Your task to perform on an android device: delete location history Image 0: 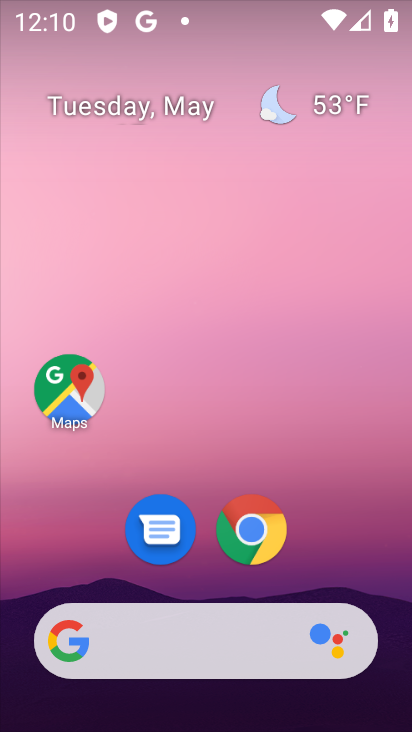
Step 0: drag from (221, 723) to (215, 97)
Your task to perform on an android device: delete location history Image 1: 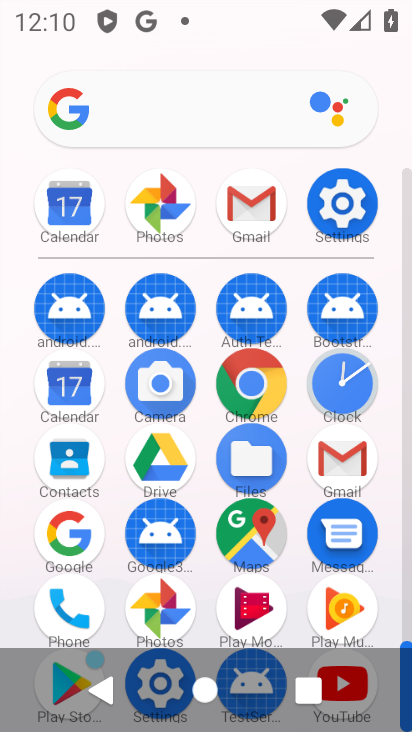
Step 1: click (334, 198)
Your task to perform on an android device: delete location history Image 2: 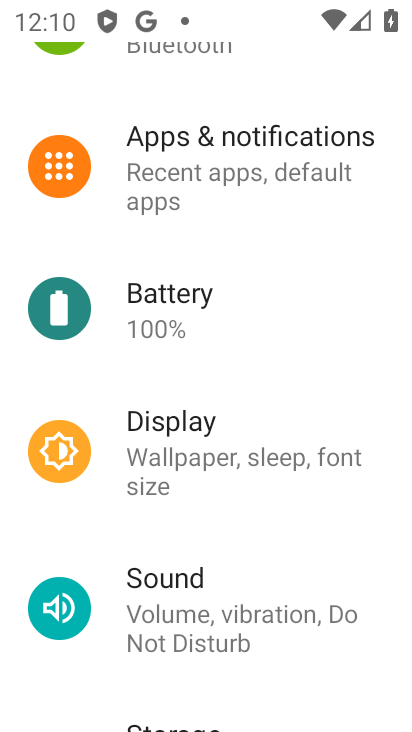
Step 2: drag from (186, 690) to (181, 280)
Your task to perform on an android device: delete location history Image 3: 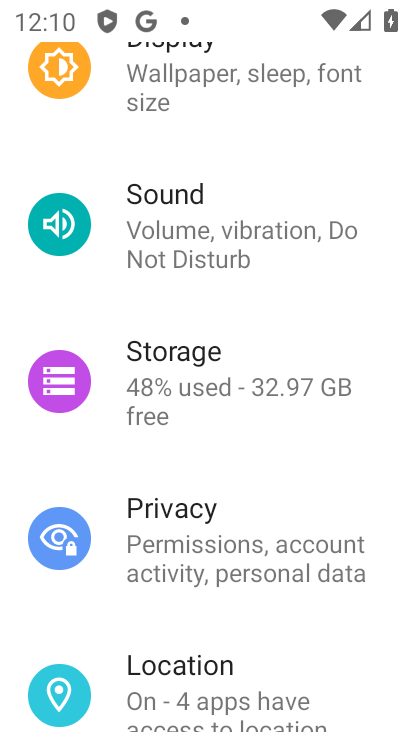
Step 3: click (169, 676)
Your task to perform on an android device: delete location history Image 4: 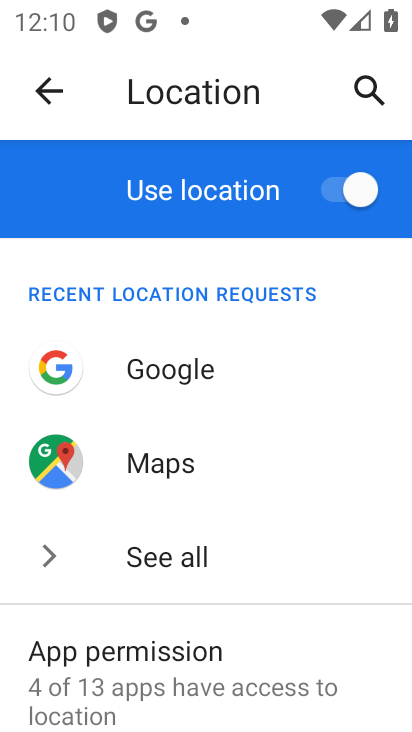
Step 4: drag from (147, 686) to (161, 287)
Your task to perform on an android device: delete location history Image 5: 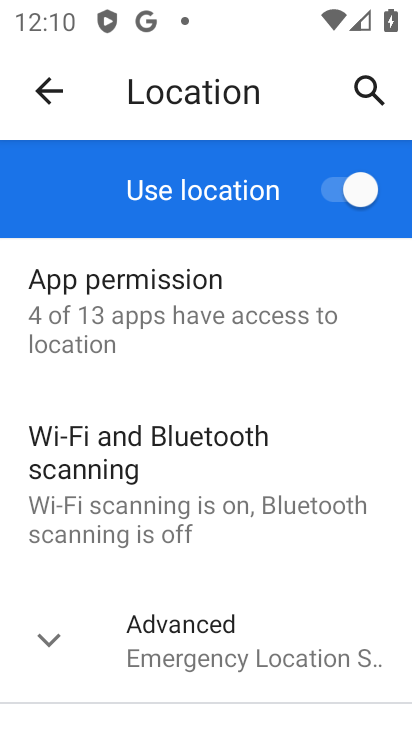
Step 5: drag from (193, 641) to (203, 319)
Your task to perform on an android device: delete location history Image 6: 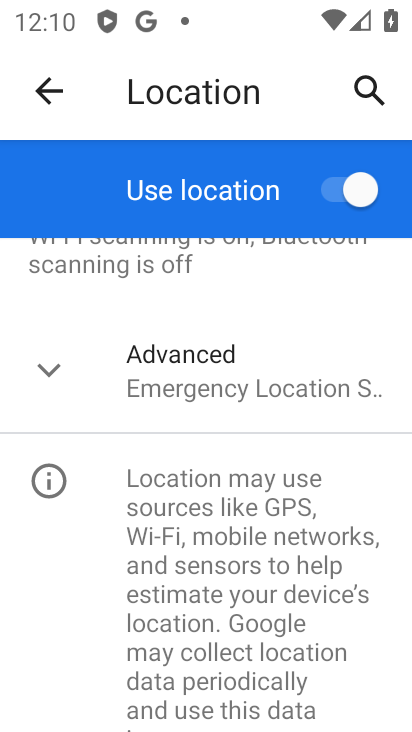
Step 6: click (187, 381)
Your task to perform on an android device: delete location history Image 7: 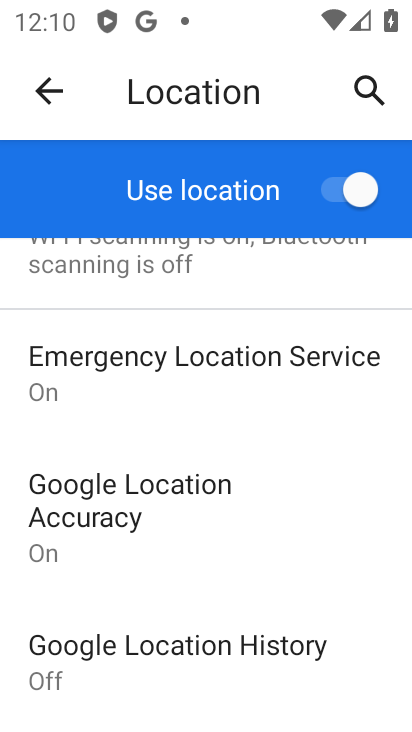
Step 7: click (145, 647)
Your task to perform on an android device: delete location history Image 8: 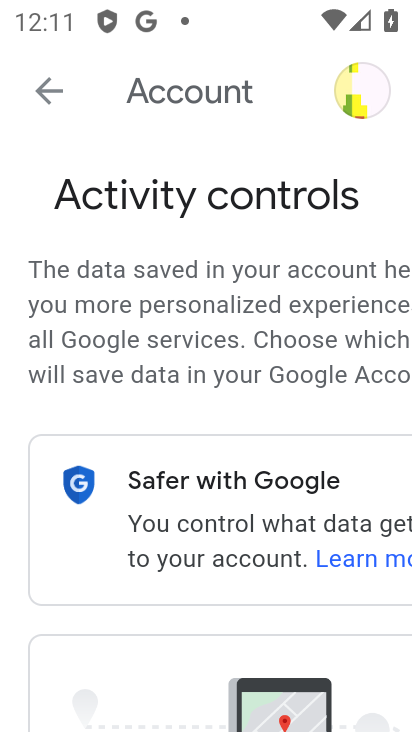
Step 8: drag from (203, 693) to (204, 323)
Your task to perform on an android device: delete location history Image 9: 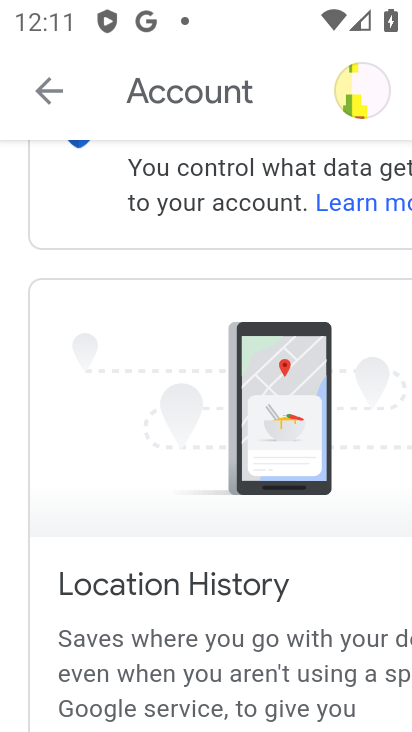
Step 9: drag from (199, 683) to (209, 258)
Your task to perform on an android device: delete location history Image 10: 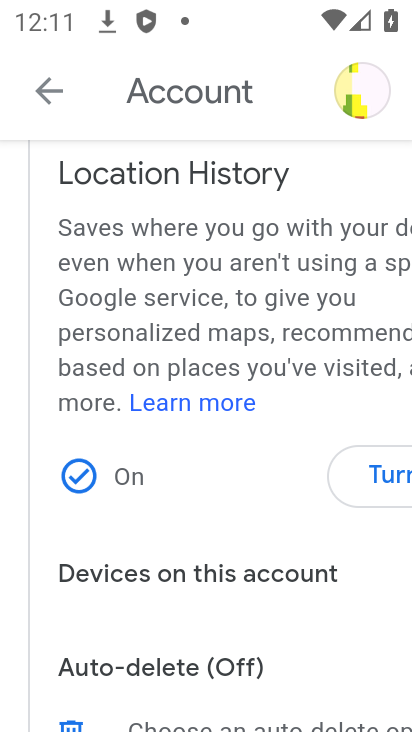
Step 10: drag from (218, 639) to (221, 351)
Your task to perform on an android device: delete location history Image 11: 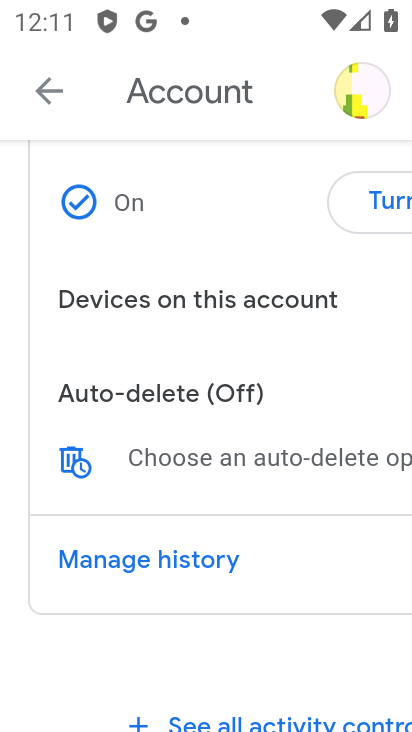
Step 11: click (75, 462)
Your task to perform on an android device: delete location history Image 12: 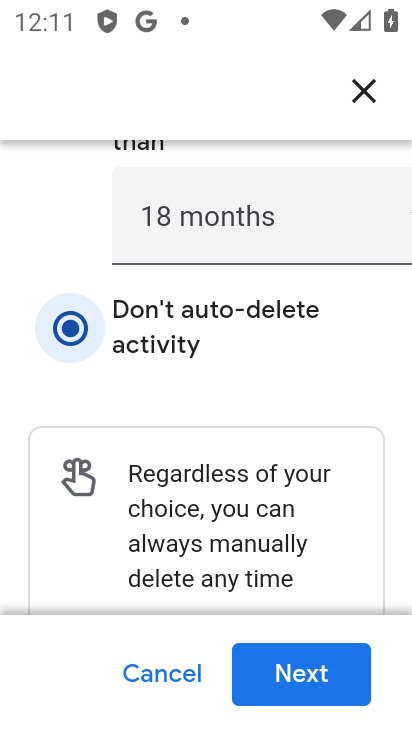
Step 12: click (294, 673)
Your task to perform on an android device: delete location history Image 13: 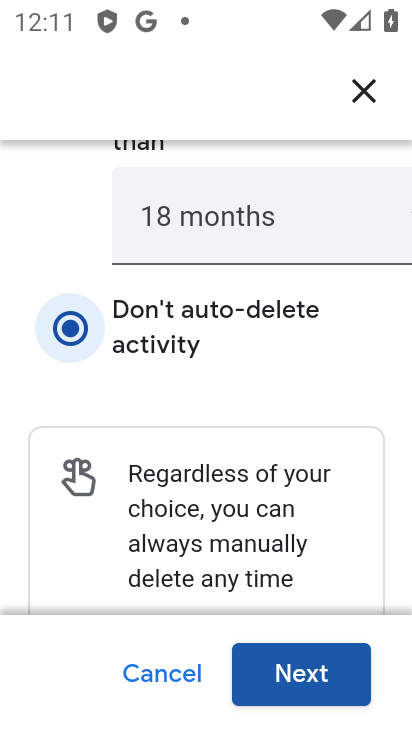
Step 13: click (304, 669)
Your task to perform on an android device: delete location history Image 14: 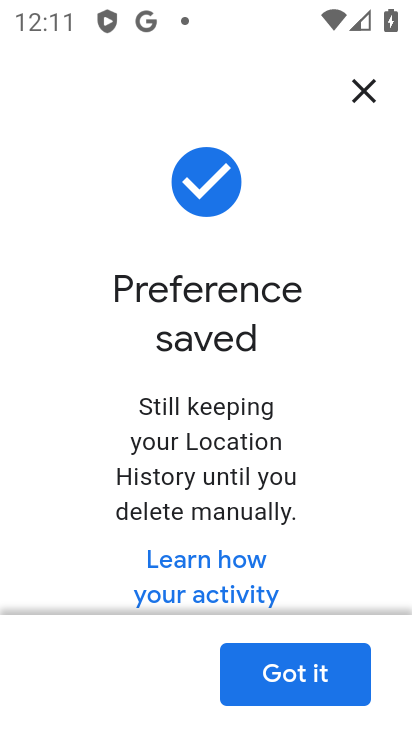
Step 14: task complete